Your task to perform on an android device: Open battery settings Image 0: 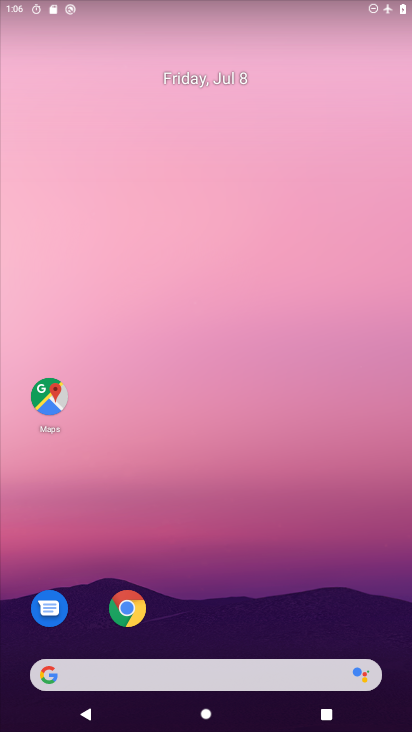
Step 0: drag from (250, 714) to (259, 156)
Your task to perform on an android device: Open battery settings Image 1: 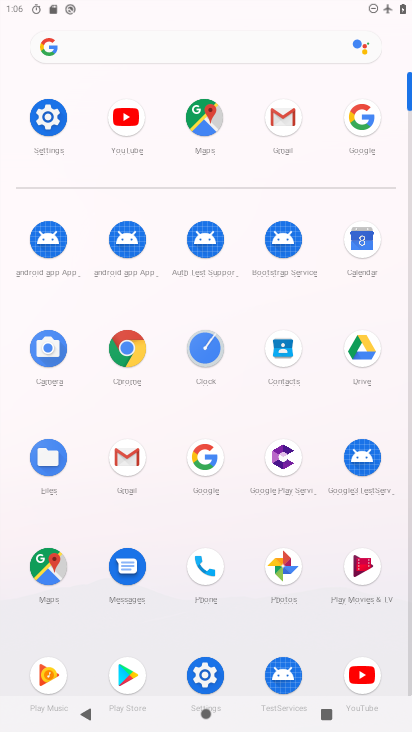
Step 1: click (50, 119)
Your task to perform on an android device: Open battery settings Image 2: 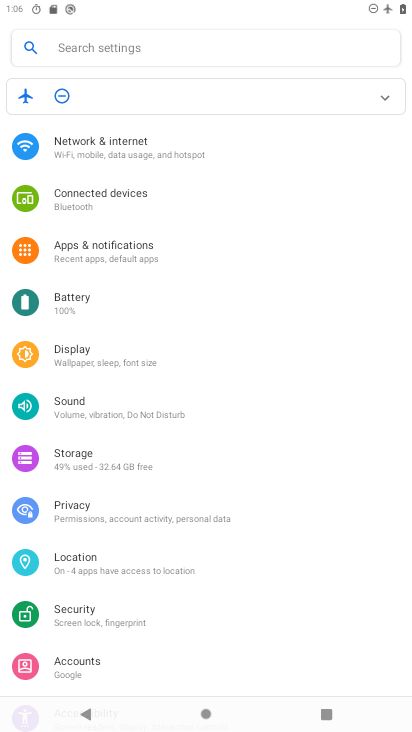
Step 2: click (71, 302)
Your task to perform on an android device: Open battery settings Image 3: 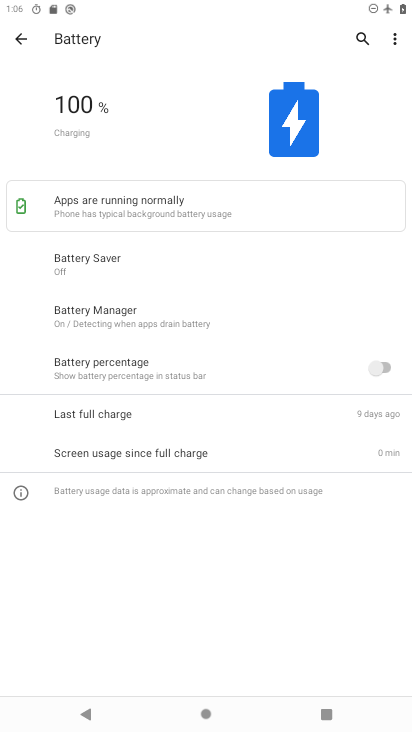
Step 3: task complete